Your task to perform on an android device: Show me productivity apps on the Play Store Image 0: 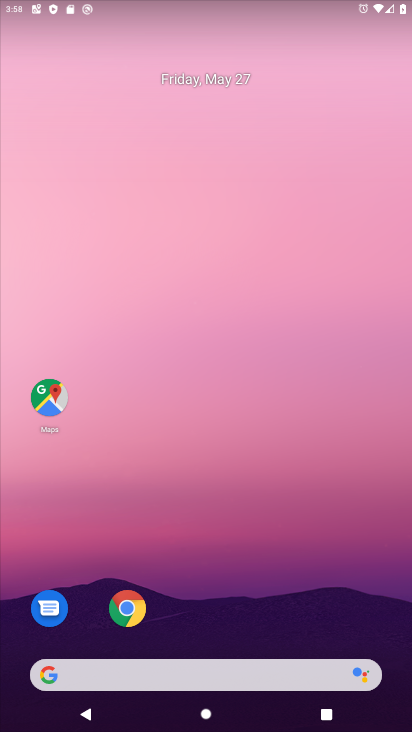
Step 0: drag from (199, 640) to (197, 213)
Your task to perform on an android device: Show me productivity apps on the Play Store Image 1: 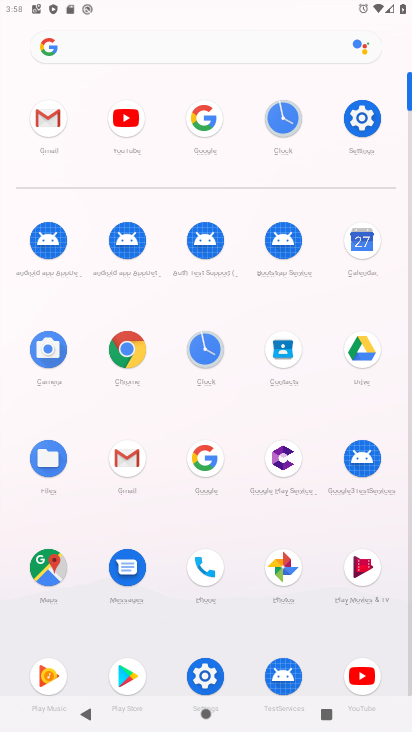
Step 1: click (116, 679)
Your task to perform on an android device: Show me productivity apps on the Play Store Image 2: 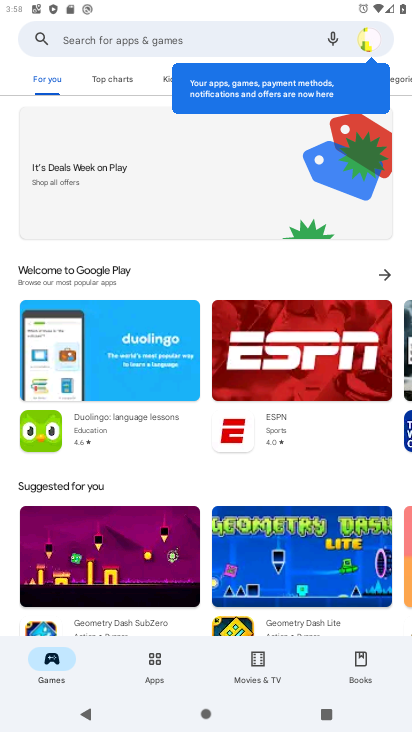
Step 2: click (160, 672)
Your task to perform on an android device: Show me productivity apps on the Play Store Image 3: 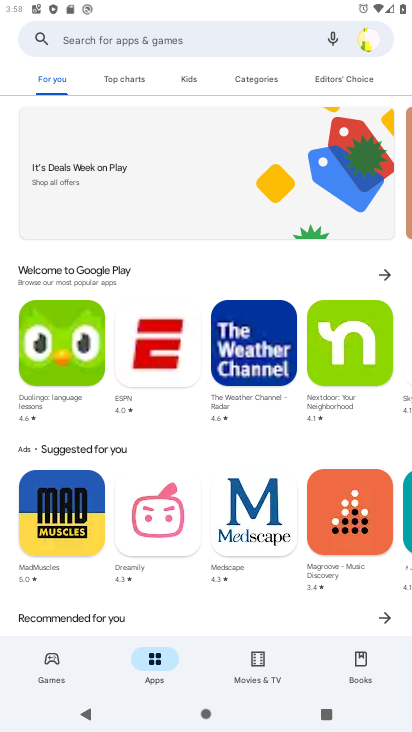
Step 3: task complete